Your task to perform on an android device: toggle location history Image 0: 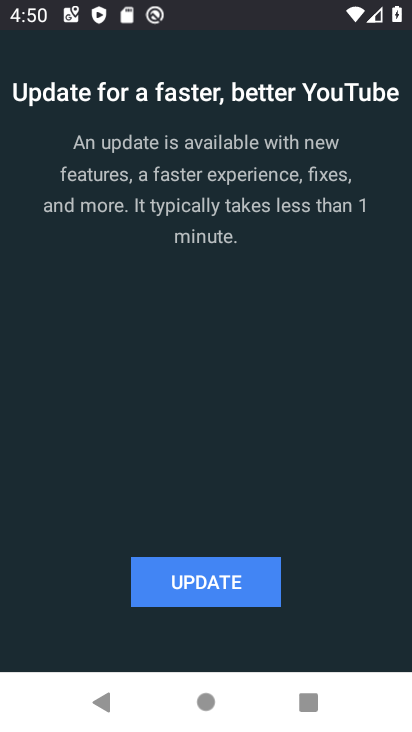
Step 0: press home button
Your task to perform on an android device: toggle location history Image 1: 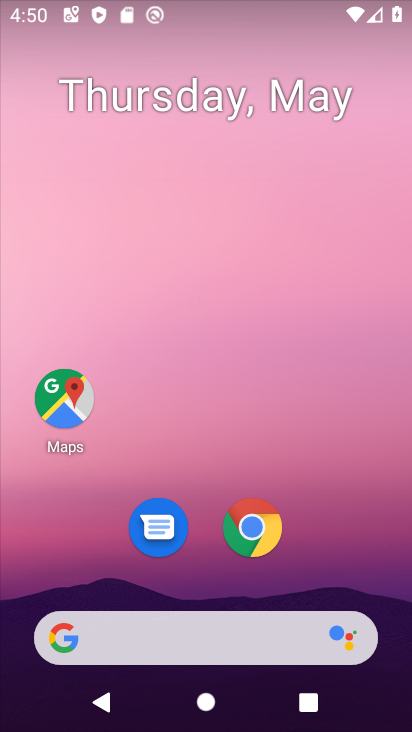
Step 1: drag from (354, 481) to (342, 122)
Your task to perform on an android device: toggle location history Image 2: 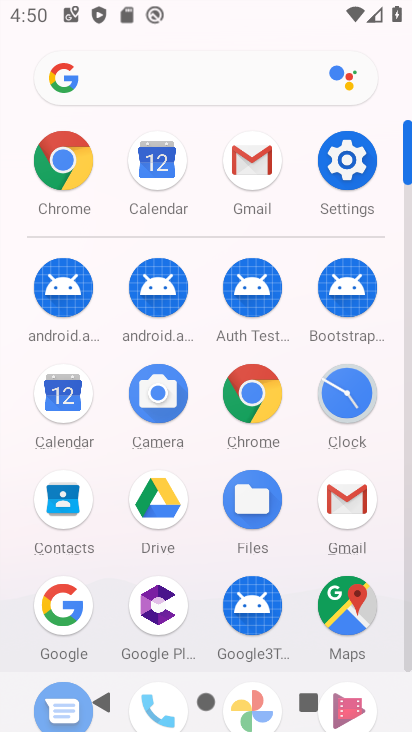
Step 2: click (372, 144)
Your task to perform on an android device: toggle location history Image 3: 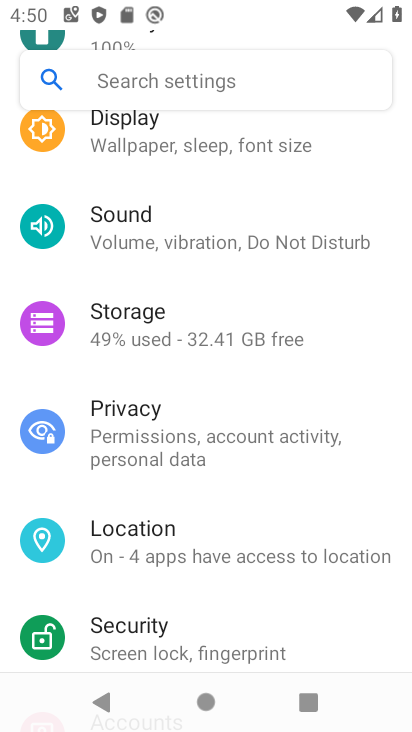
Step 3: click (179, 538)
Your task to perform on an android device: toggle location history Image 4: 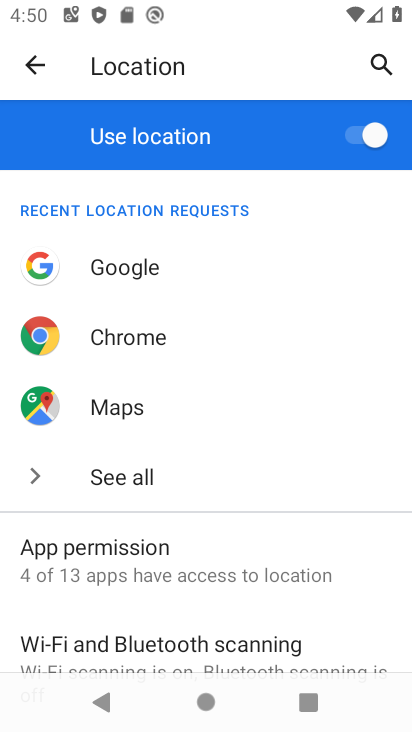
Step 4: drag from (150, 584) to (87, 110)
Your task to perform on an android device: toggle location history Image 5: 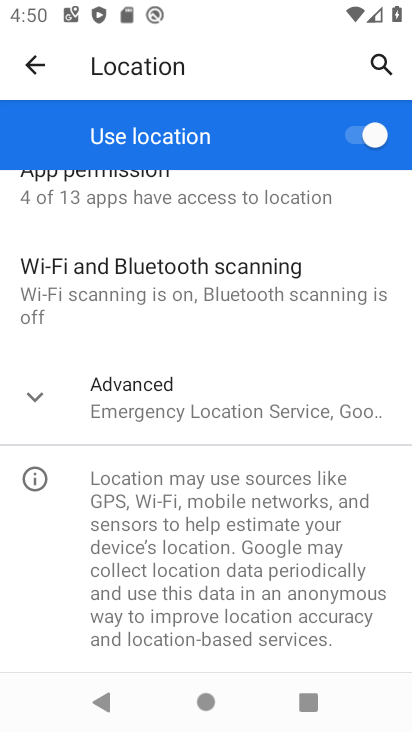
Step 5: drag from (127, 332) to (149, 567)
Your task to perform on an android device: toggle location history Image 6: 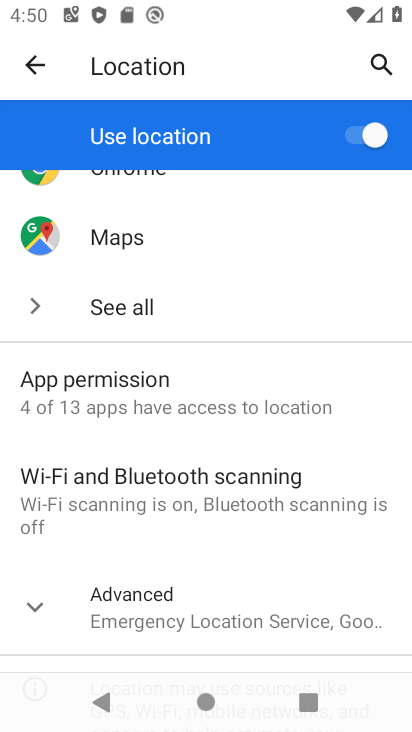
Step 6: drag from (175, 599) to (136, 295)
Your task to perform on an android device: toggle location history Image 7: 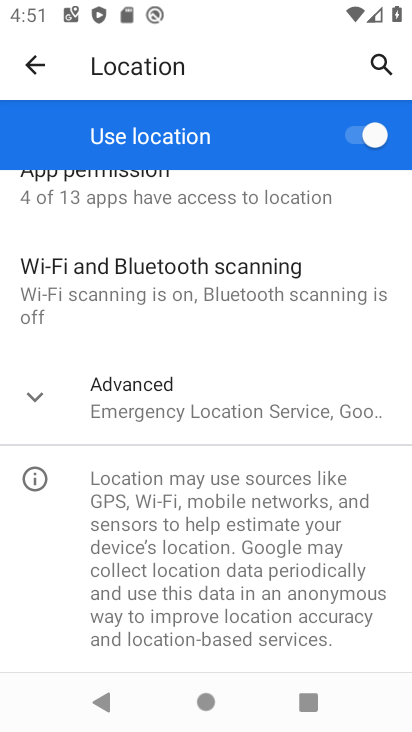
Step 7: drag from (194, 555) to (166, 167)
Your task to perform on an android device: toggle location history Image 8: 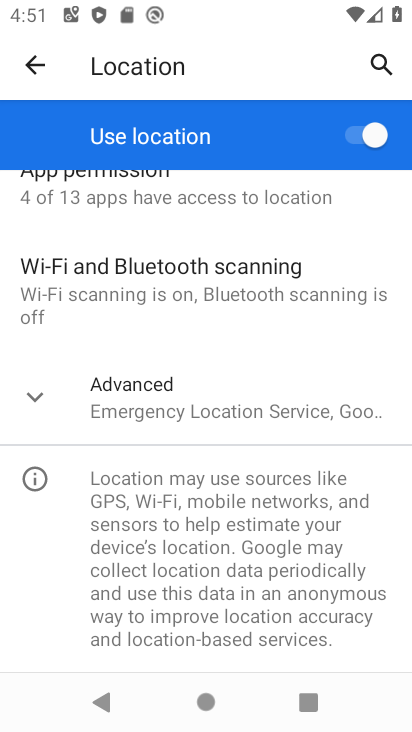
Step 8: drag from (193, 573) to (188, 339)
Your task to perform on an android device: toggle location history Image 9: 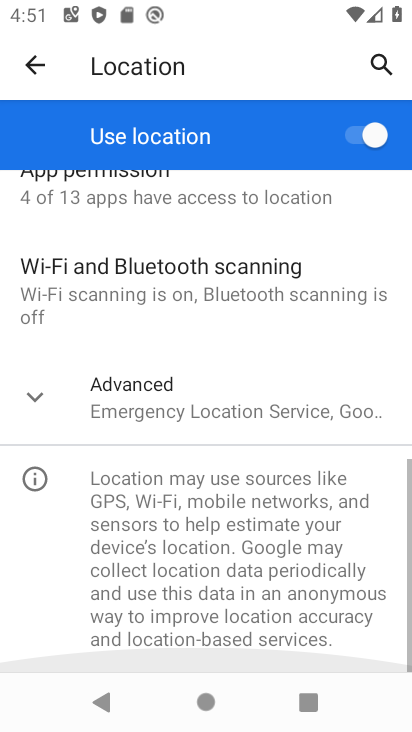
Step 9: click (155, 403)
Your task to perform on an android device: toggle location history Image 10: 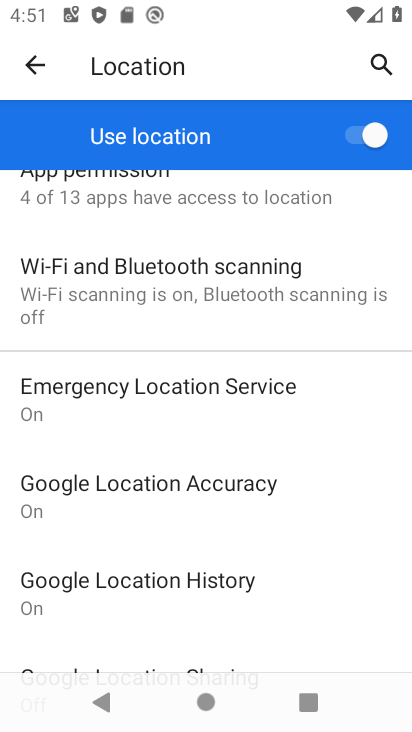
Step 10: drag from (113, 526) to (91, 192)
Your task to perform on an android device: toggle location history Image 11: 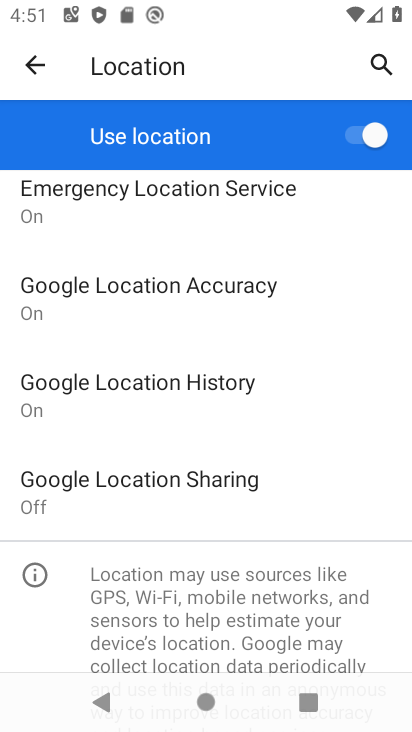
Step 11: click (146, 395)
Your task to perform on an android device: toggle location history Image 12: 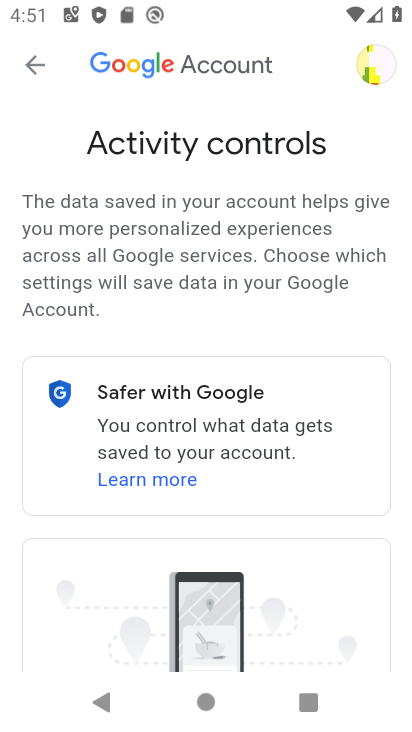
Step 12: drag from (277, 594) to (272, 75)
Your task to perform on an android device: toggle location history Image 13: 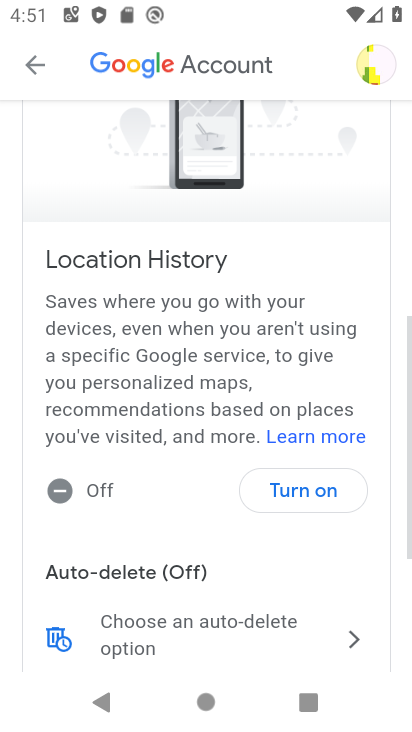
Step 13: drag from (269, 597) to (262, 154)
Your task to perform on an android device: toggle location history Image 14: 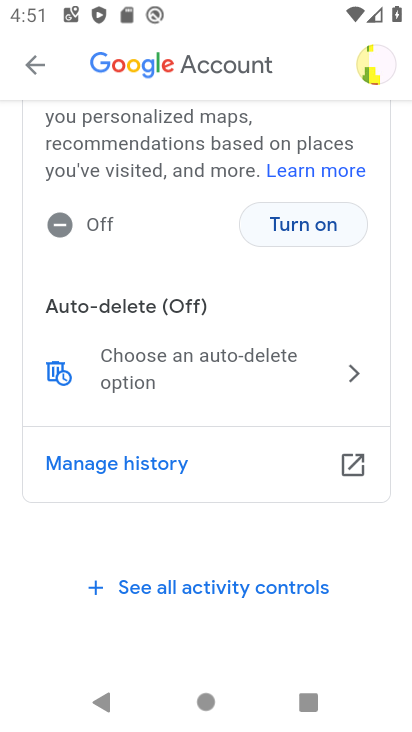
Step 14: click (311, 228)
Your task to perform on an android device: toggle location history Image 15: 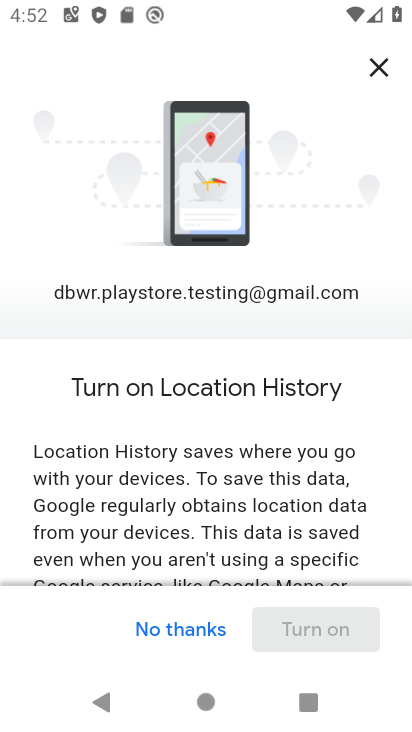
Step 15: drag from (275, 480) to (265, 73)
Your task to perform on an android device: toggle location history Image 16: 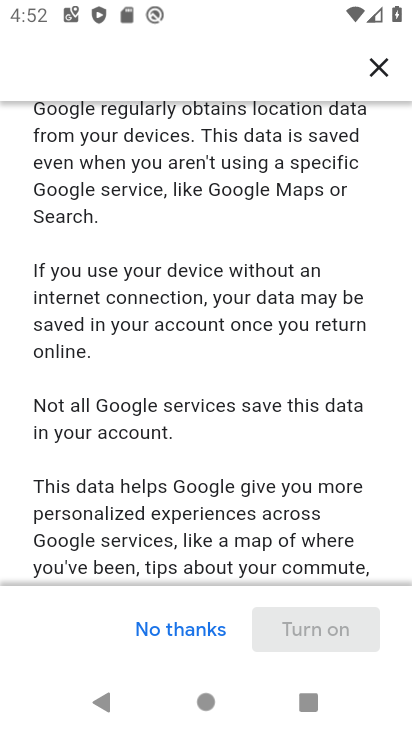
Step 16: drag from (248, 497) to (193, 161)
Your task to perform on an android device: toggle location history Image 17: 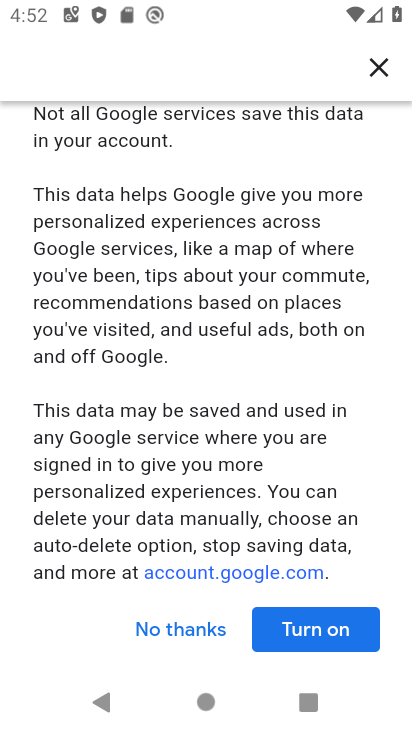
Step 17: drag from (255, 457) to (235, 153)
Your task to perform on an android device: toggle location history Image 18: 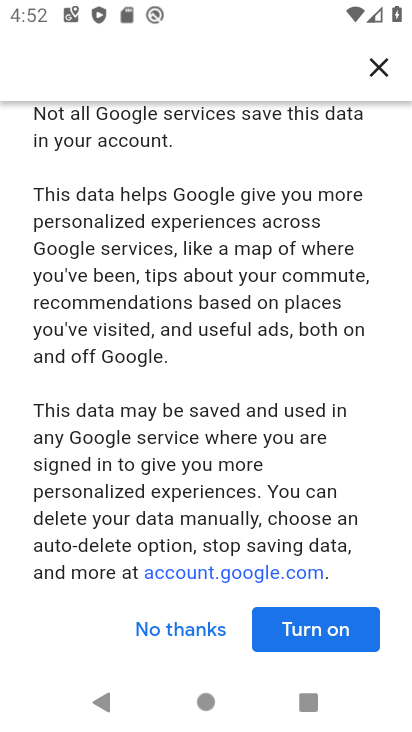
Step 18: drag from (269, 483) to (252, 220)
Your task to perform on an android device: toggle location history Image 19: 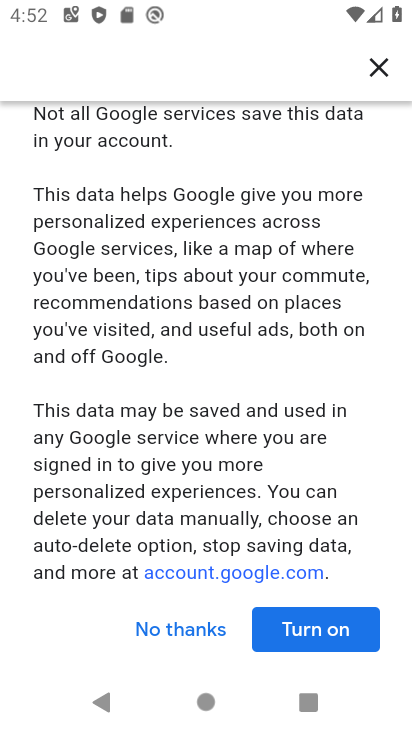
Step 19: click (339, 630)
Your task to perform on an android device: toggle location history Image 20: 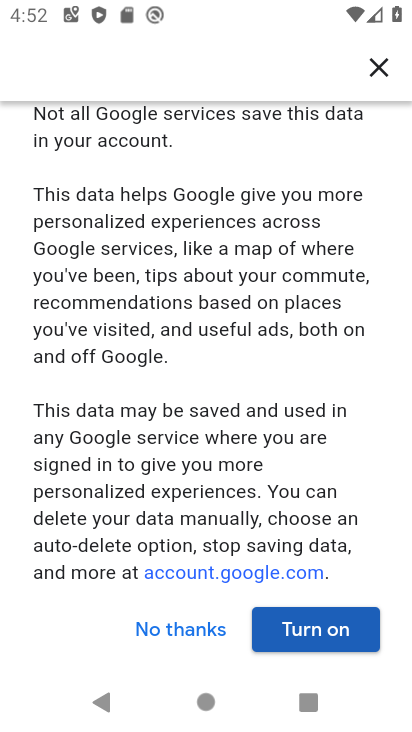
Step 20: click (305, 645)
Your task to perform on an android device: toggle location history Image 21: 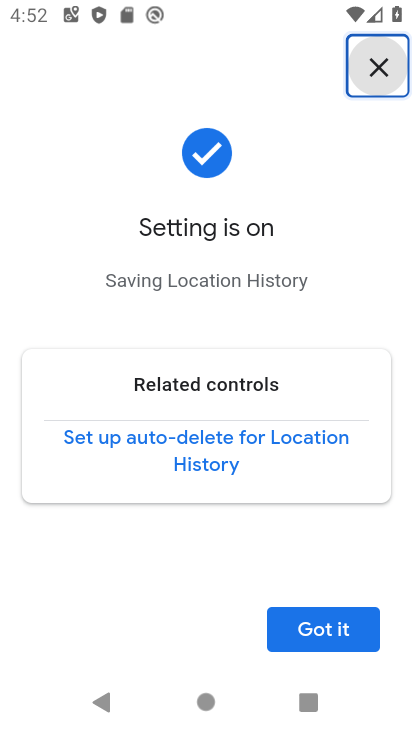
Step 21: click (302, 641)
Your task to perform on an android device: toggle location history Image 22: 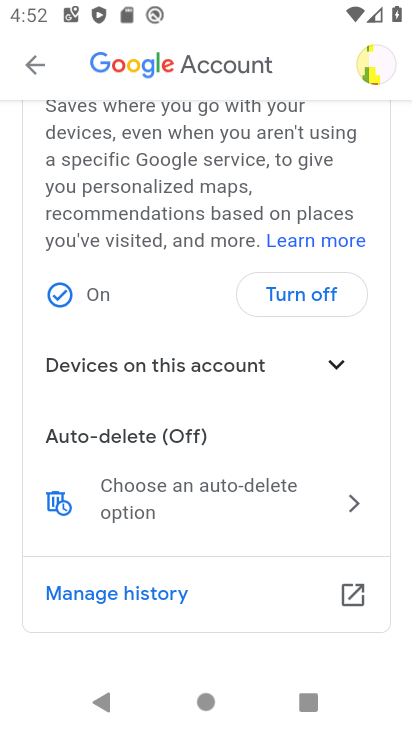
Step 22: task complete